Your task to perform on an android device: Search for usb-a on newegg.com, select the first entry, add it to the cart, then select checkout. Image 0: 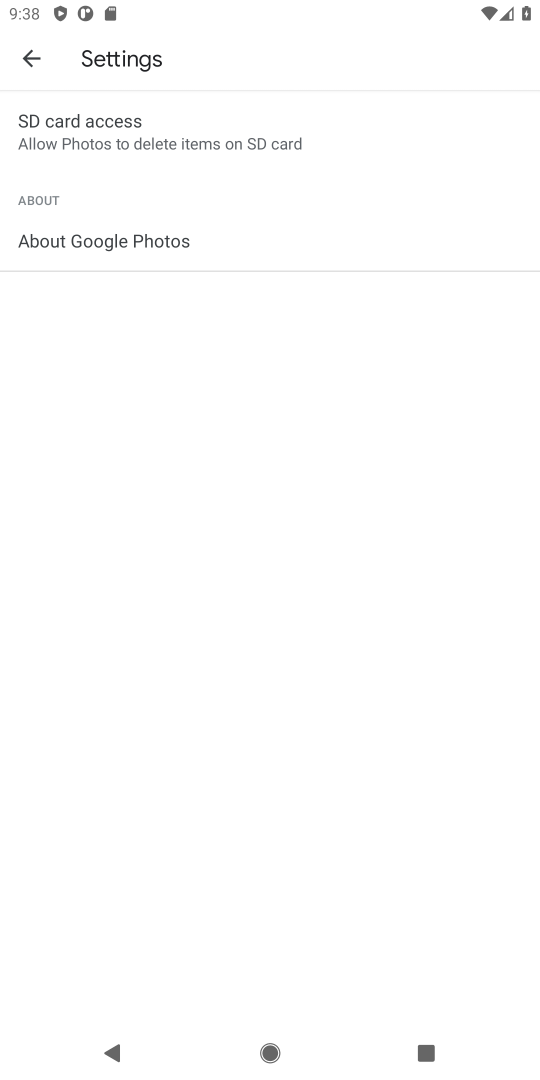
Step 0: press home button
Your task to perform on an android device: Search for usb-a on newegg.com, select the first entry, add it to the cart, then select checkout. Image 1: 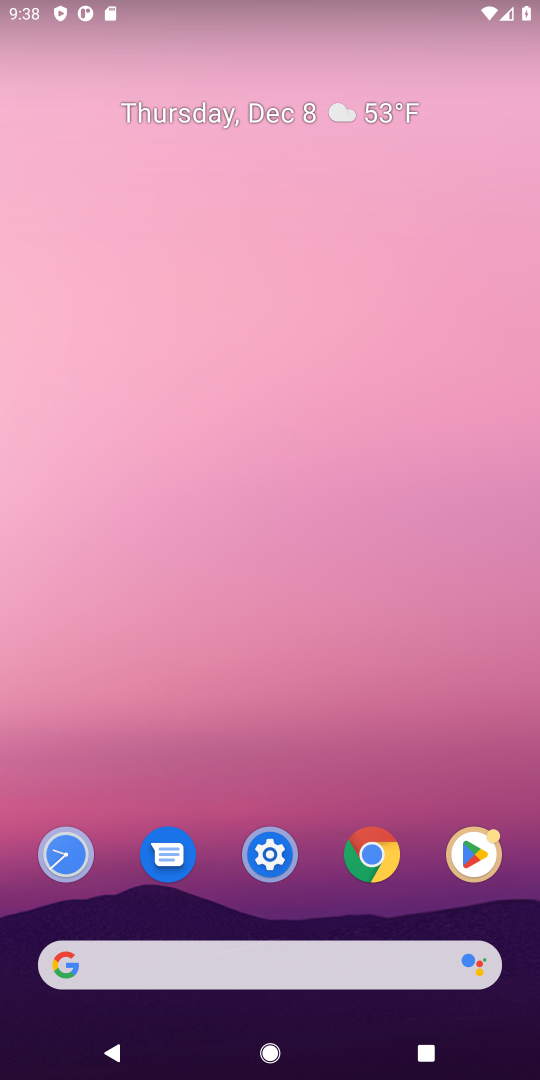
Step 1: click (81, 964)
Your task to perform on an android device: Search for usb-a on newegg.com, select the first entry, add it to the cart, then select checkout. Image 2: 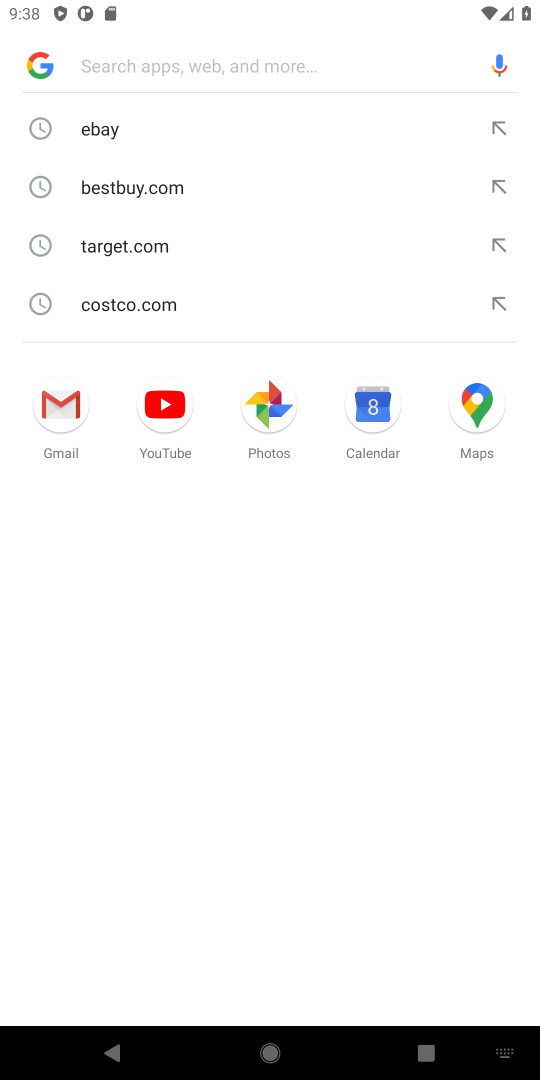
Step 2: type "newegg.com"
Your task to perform on an android device: Search for usb-a on newegg.com, select the first entry, add it to the cart, then select checkout. Image 3: 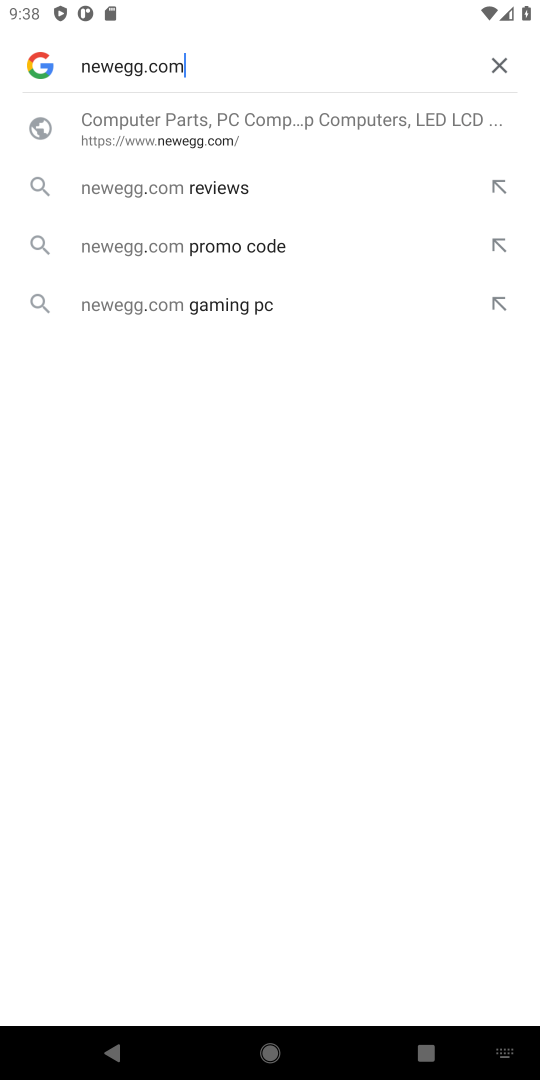
Step 3: press enter
Your task to perform on an android device: Search for usb-a on newegg.com, select the first entry, add it to the cart, then select checkout. Image 4: 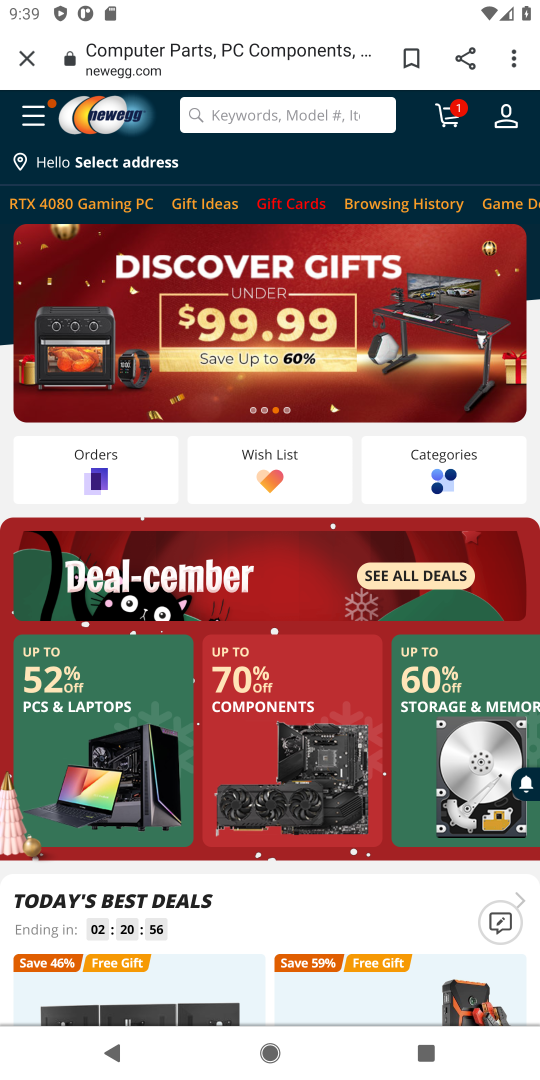
Step 4: click (228, 109)
Your task to perform on an android device: Search for usb-a on newegg.com, select the first entry, add it to the cart, then select checkout. Image 5: 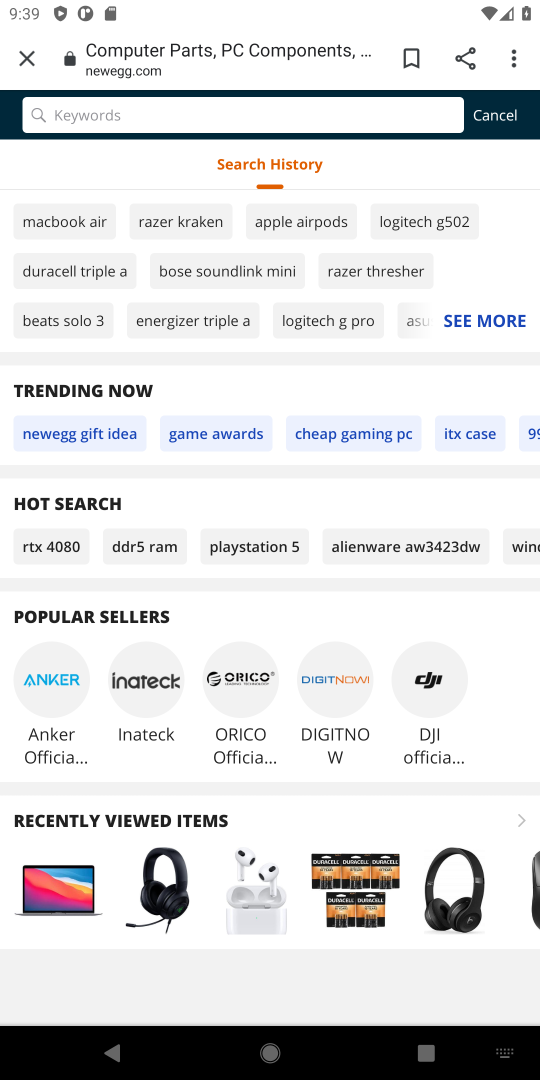
Step 5: type "usb-a"
Your task to perform on an android device: Search for usb-a on newegg.com, select the first entry, add it to the cart, then select checkout. Image 6: 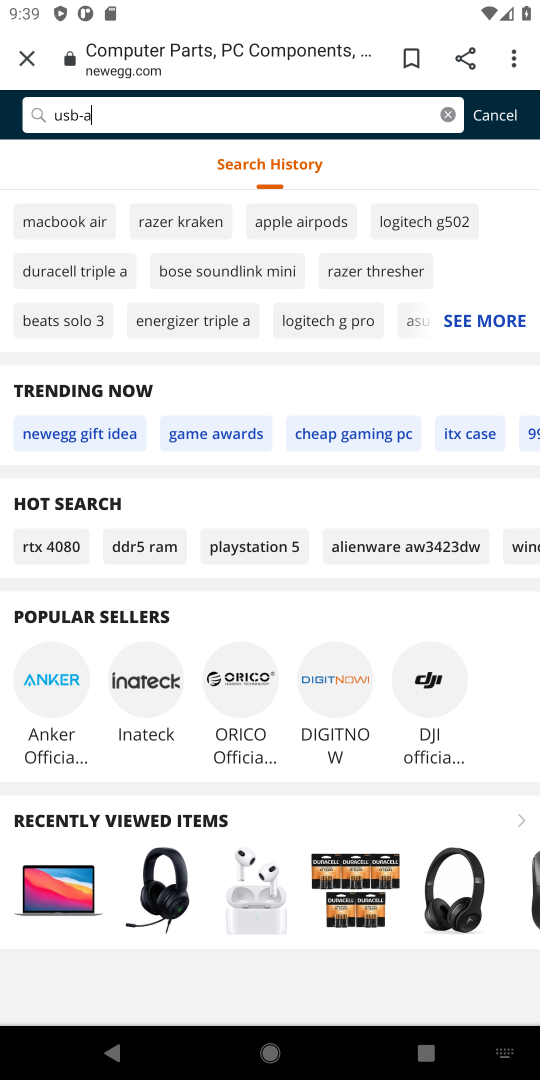
Step 6: press enter
Your task to perform on an android device: Search for usb-a on newegg.com, select the first entry, add it to the cart, then select checkout. Image 7: 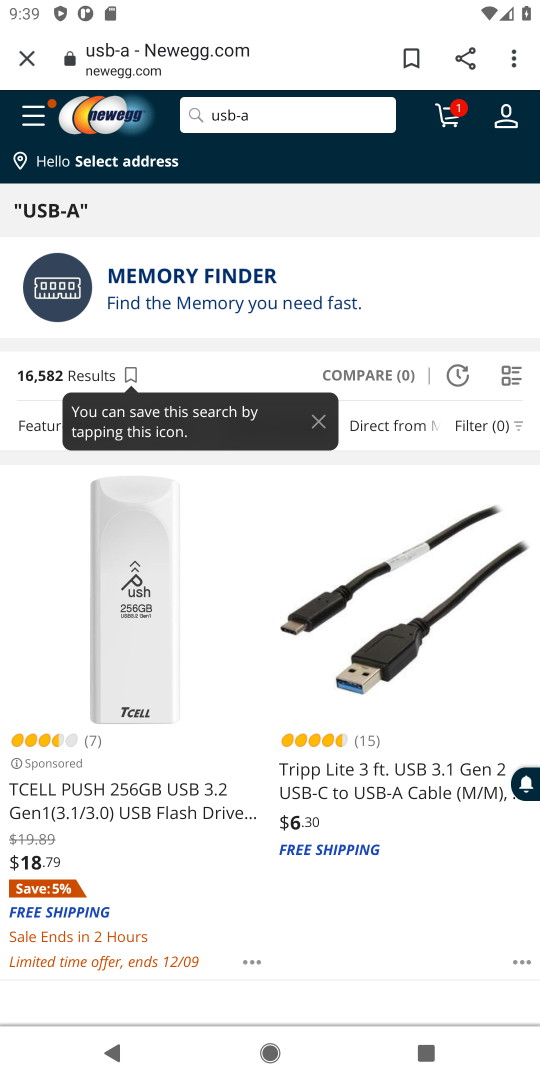
Step 7: drag from (270, 928) to (303, 727)
Your task to perform on an android device: Search for usb-a on newegg.com, select the first entry, add it to the cart, then select checkout. Image 8: 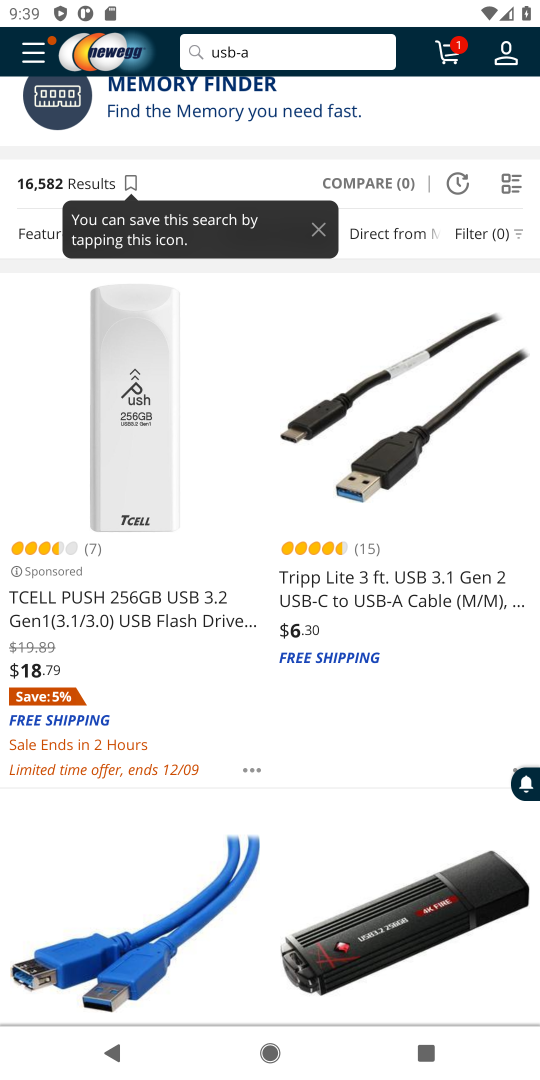
Step 8: click (382, 574)
Your task to perform on an android device: Search for usb-a on newegg.com, select the first entry, add it to the cart, then select checkout. Image 9: 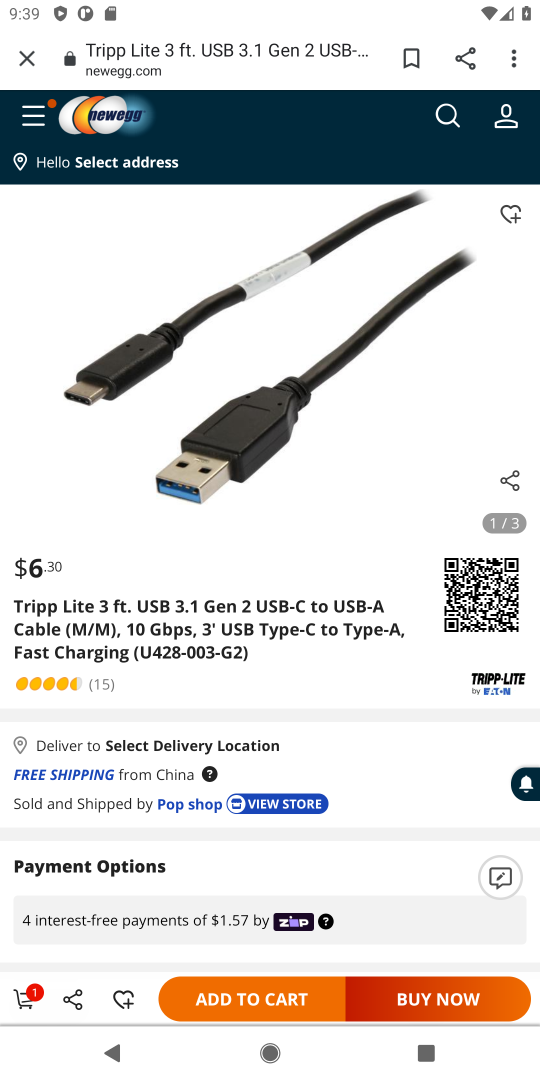
Step 9: click (235, 997)
Your task to perform on an android device: Search for usb-a on newegg.com, select the first entry, add it to the cart, then select checkout. Image 10: 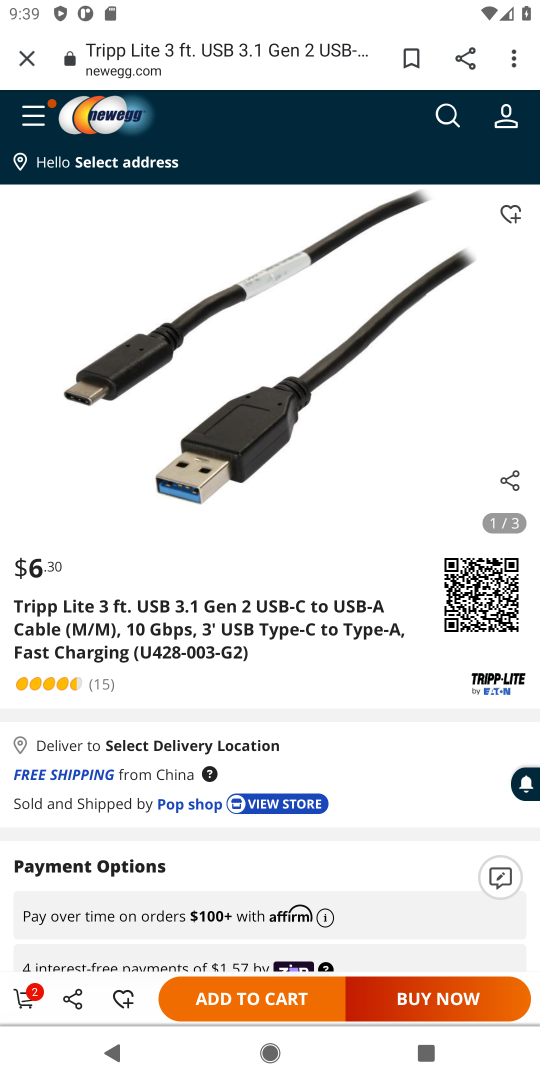
Step 10: click (28, 995)
Your task to perform on an android device: Search for usb-a on newegg.com, select the first entry, add it to the cart, then select checkout. Image 11: 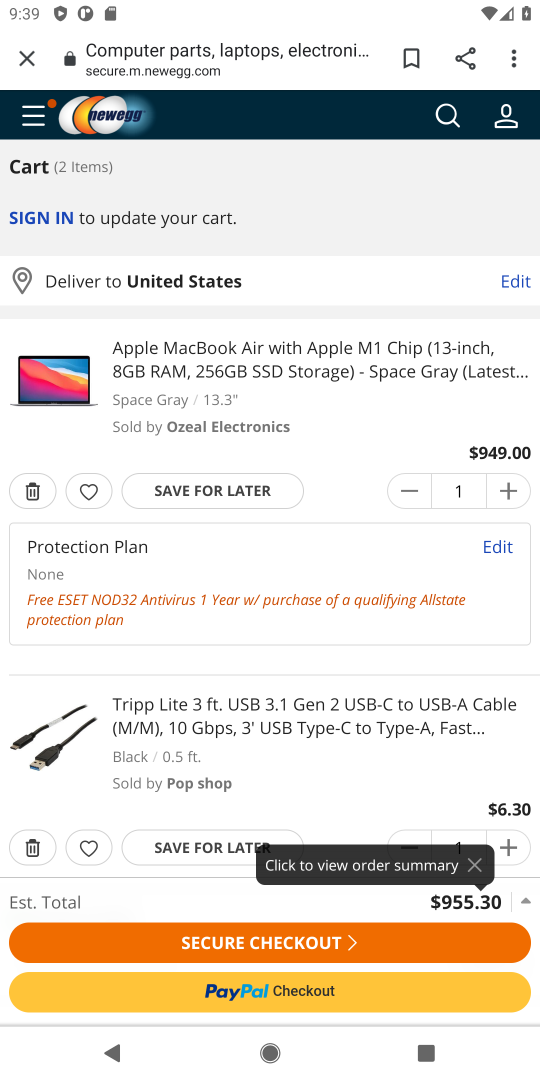
Step 11: click (220, 941)
Your task to perform on an android device: Search for usb-a on newegg.com, select the first entry, add it to the cart, then select checkout. Image 12: 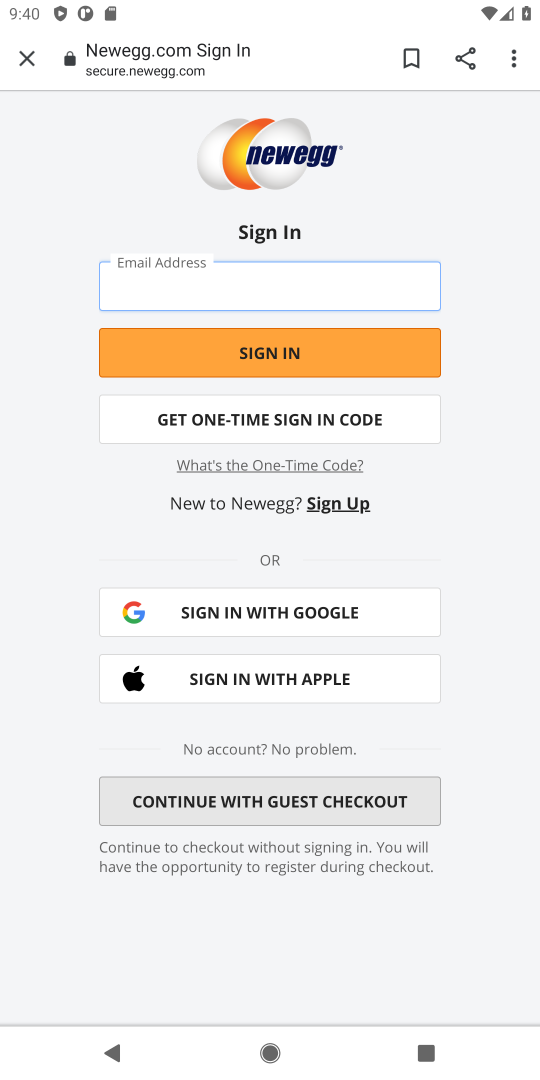
Step 12: task complete